Your task to perform on an android device: open sync settings in chrome Image 0: 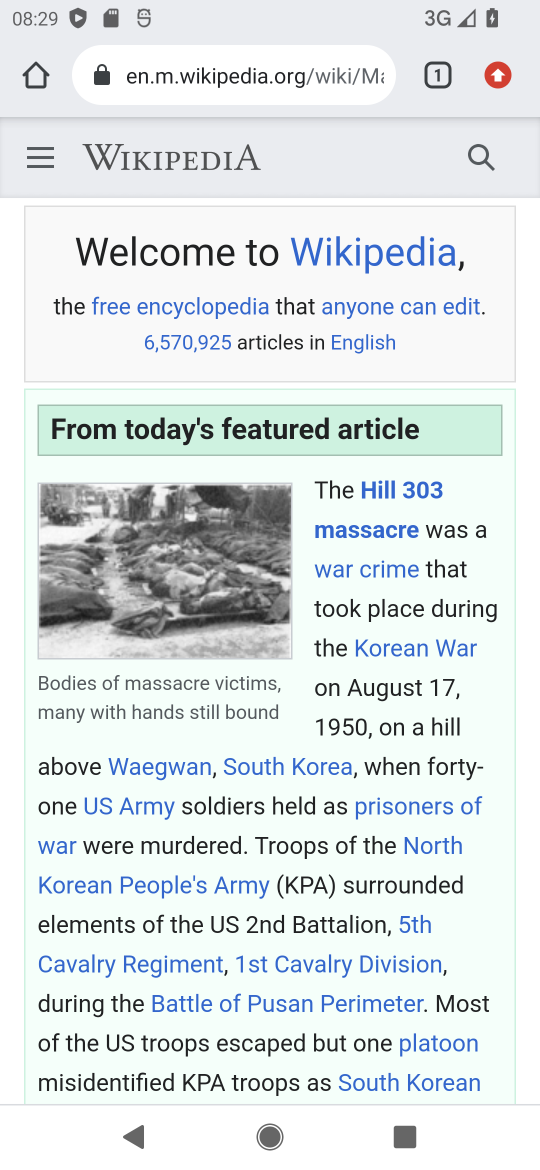
Step 0: press home button
Your task to perform on an android device: open sync settings in chrome Image 1: 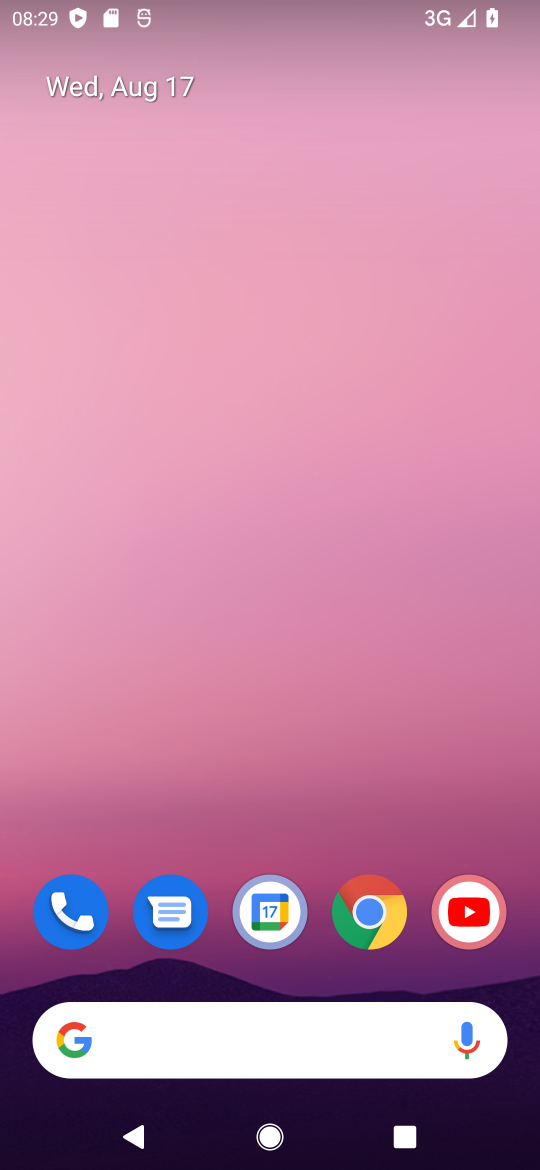
Step 1: drag from (273, 990) to (273, 495)
Your task to perform on an android device: open sync settings in chrome Image 2: 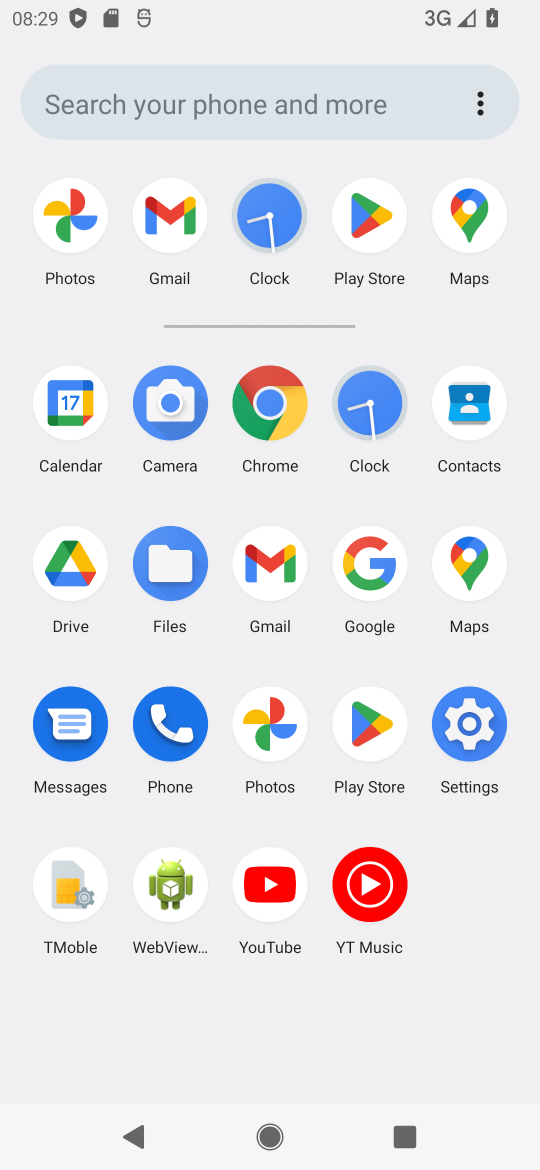
Step 2: click (265, 391)
Your task to perform on an android device: open sync settings in chrome Image 3: 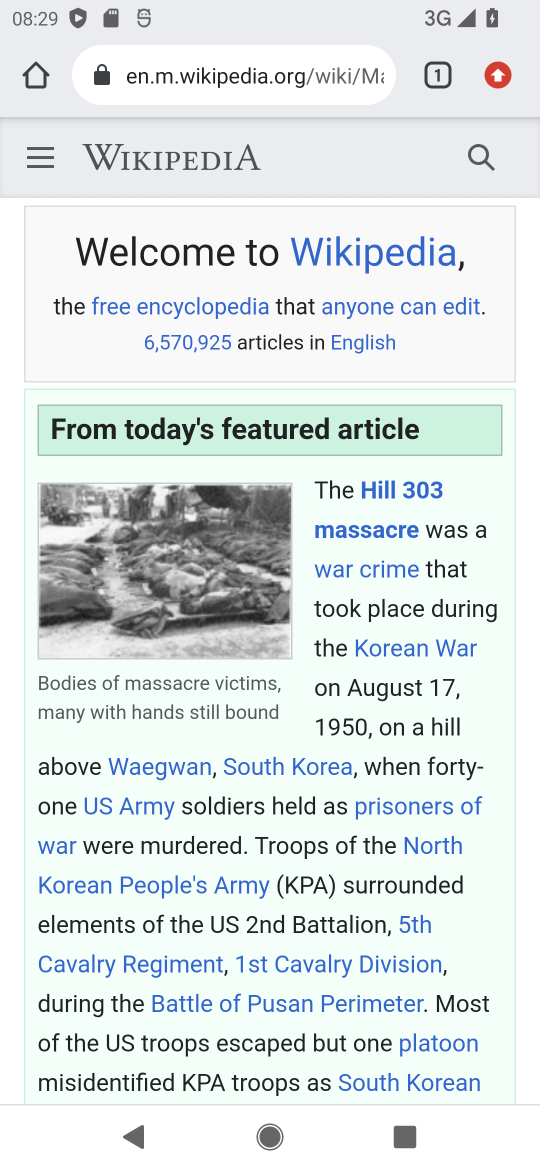
Step 3: click (520, 80)
Your task to perform on an android device: open sync settings in chrome Image 4: 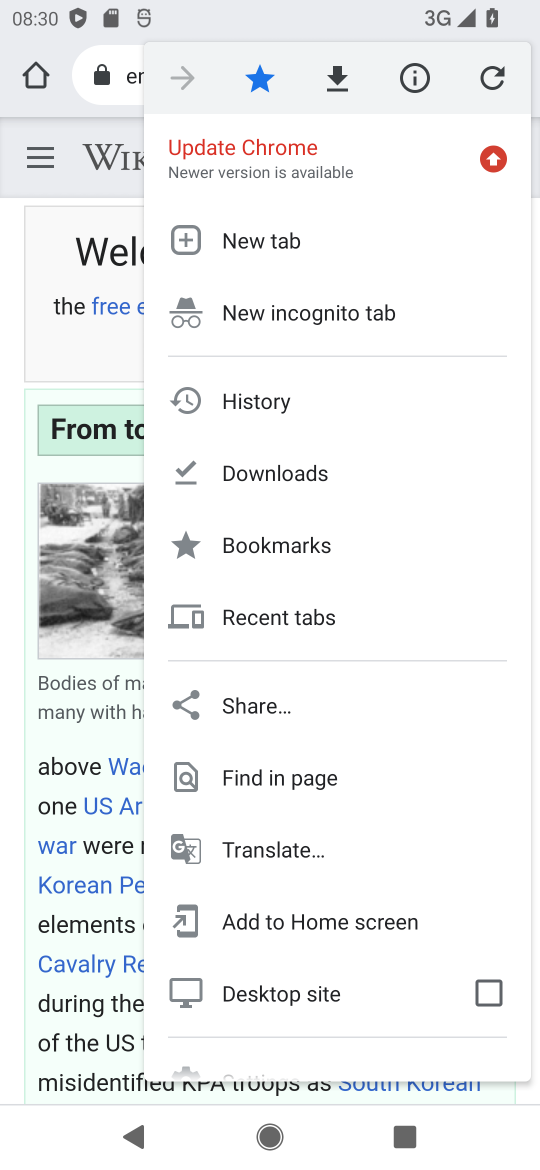
Step 4: drag from (279, 972) to (279, 301)
Your task to perform on an android device: open sync settings in chrome Image 5: 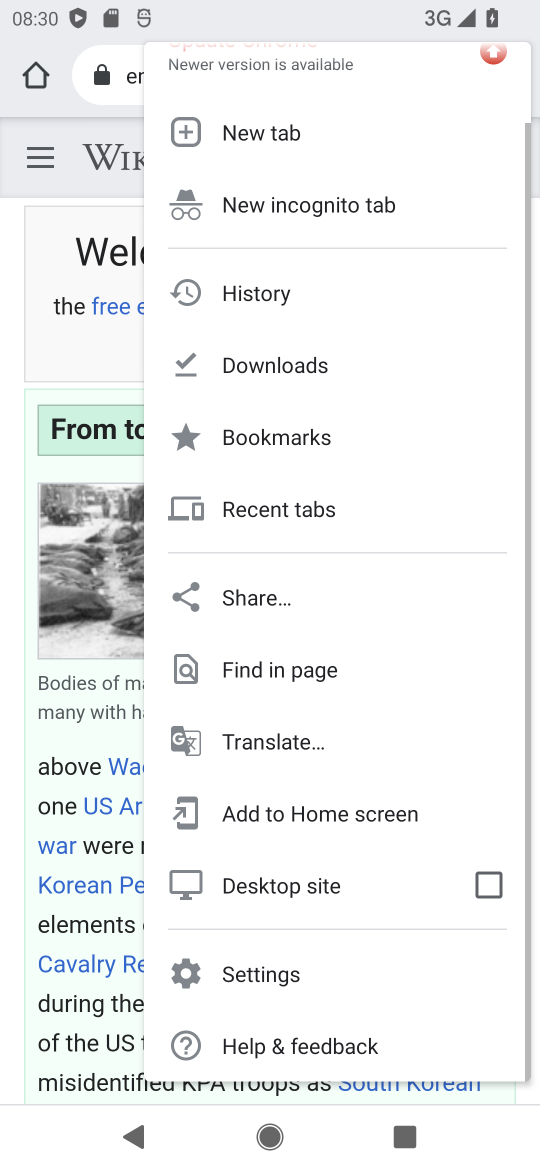
Step 5: click (230, 974)
Your task to perform on an android device: open sync settings in chrome Image 6: 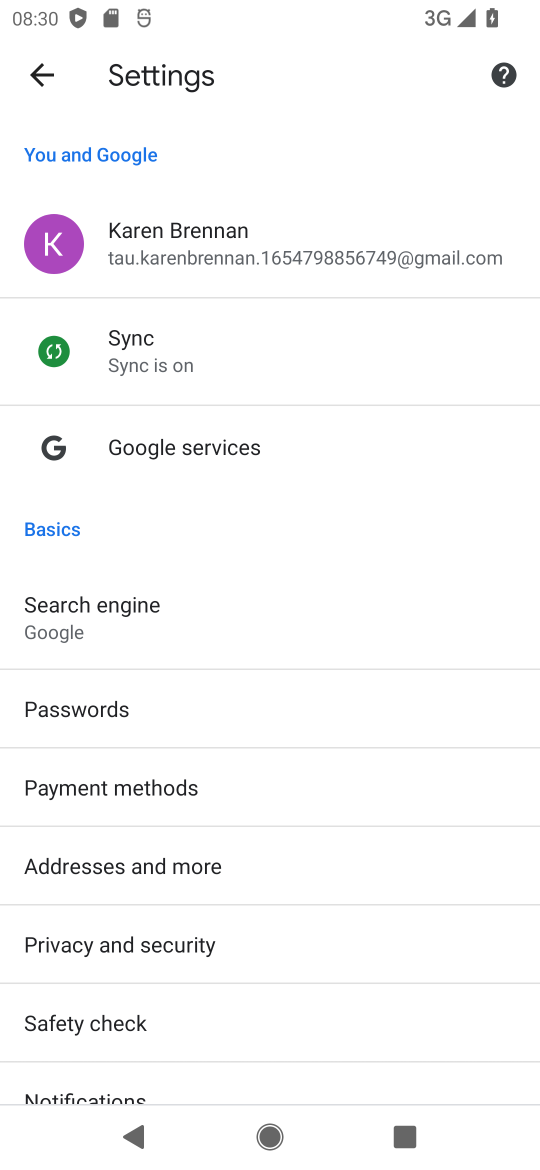
Step 6: click (144, 351)
Your task to perform on an android device: open sync settings in chrome Image 7: 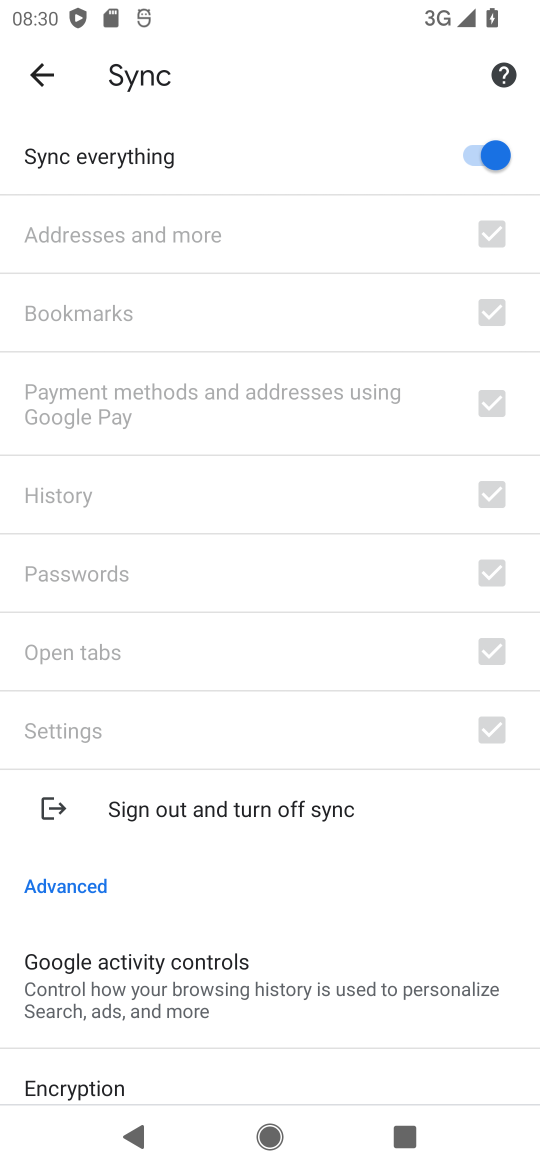
Step 7: task complete